Your task to perform on an android device: turn on airplane mode Image 0: 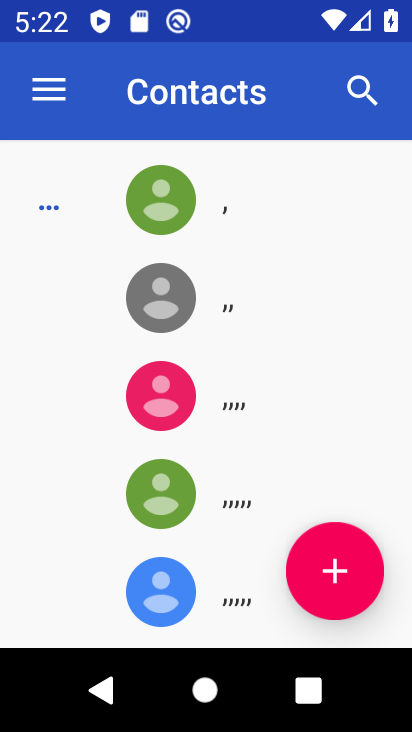
Step 0: press home button
Your task to perform on an android device: turn on airplane mode Image 1: 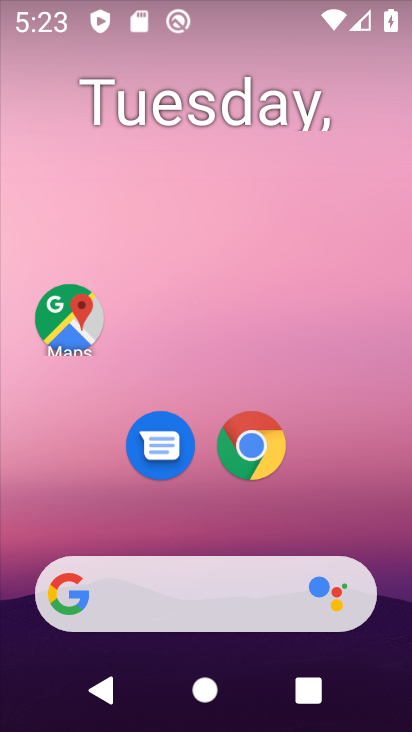
Step 1: drag from (298, 6) to (292, 423)
Your task to perform on an android device: turn on airplane mode Image 2: 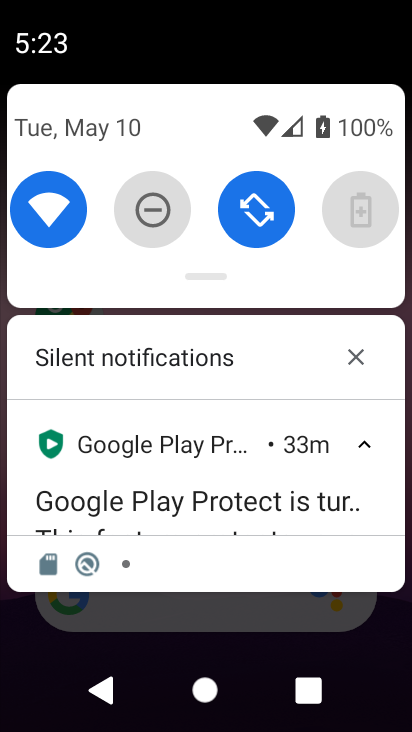
Step 2: drag from (298, 259) to (281, 635)
Your task to perform on an android device: turn on airplane mode Image 3: 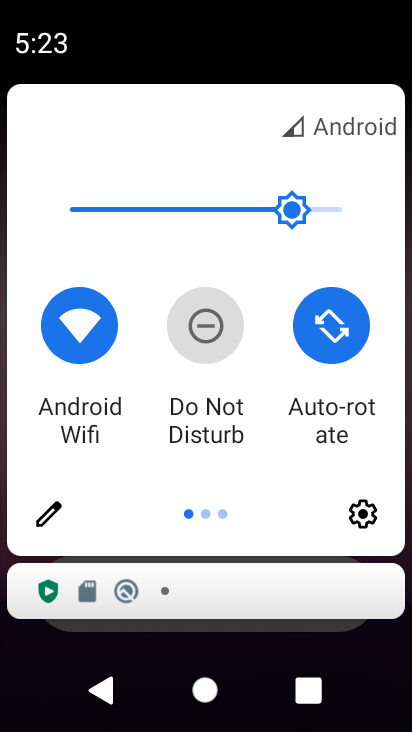
Step 3: drag from (388, 293) to (8, 283)
Your task to perform on an android device: turn on airplane mode Image 4: 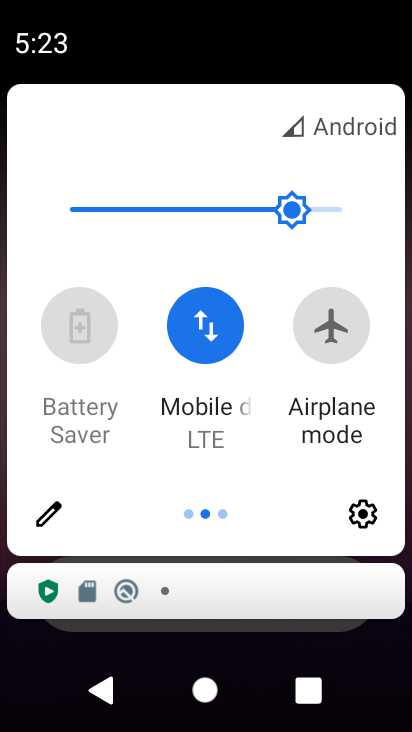
Step 4: click (339, 328)
Your task to perform on an android device: turn on airplane mode Image 5: 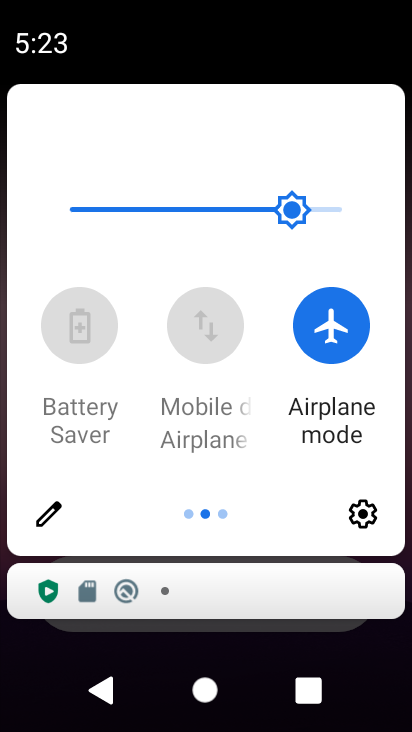
Step 5: task complete